Your task to perform on an android device: Open Google Chrome and click the shortcut for Amazon.com Image 0: 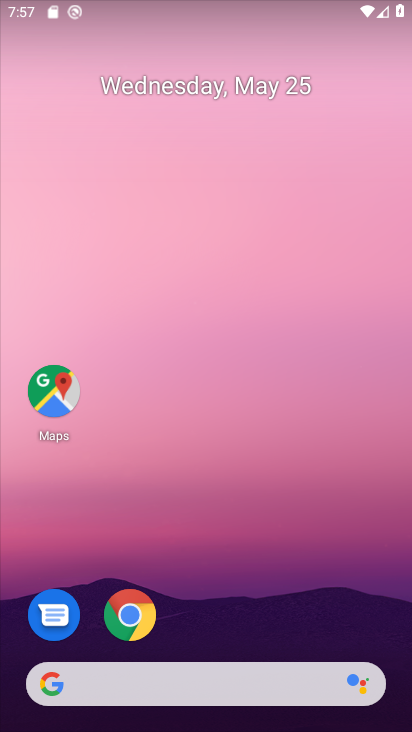
Step 0: drag from (262, 507) to (6, 31)
Your task to perform on an android device: Open Google Chrome and click the shortcut for Amazon.com Image 1: 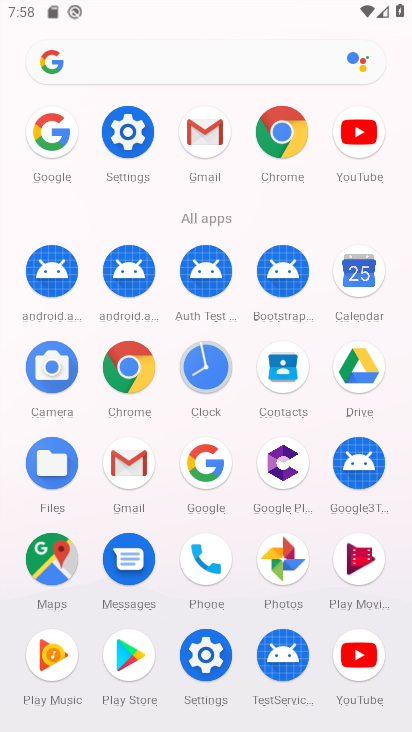
Step 1: click (283, 130)
Your task to perform on an android device: Open Google Chrome and click the shortcut for Amazon.com Image 2: 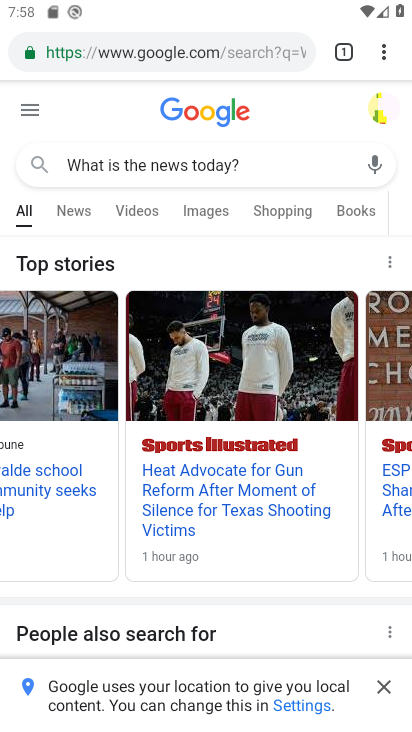
Step 2: click (237, 54)
Your task to perform on an android device: Open Google Chrome and click the shortcut for Amazon.com Image 3: 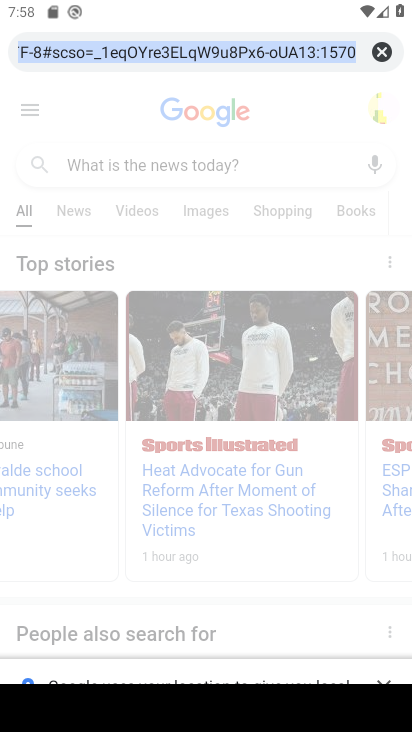
Step 3: click (379, 47)
Your task to perform on an android device: Open Google Chrome and click the shortcut for Amazon.com Image 4: 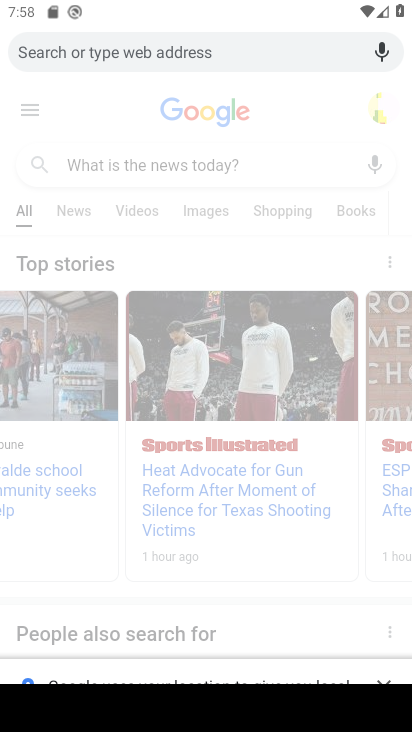
Step 4: type " Amazon.com"
Your task to perform on an android device: Open Google Chrome and click the shortcut for Amazon.com Image 5: 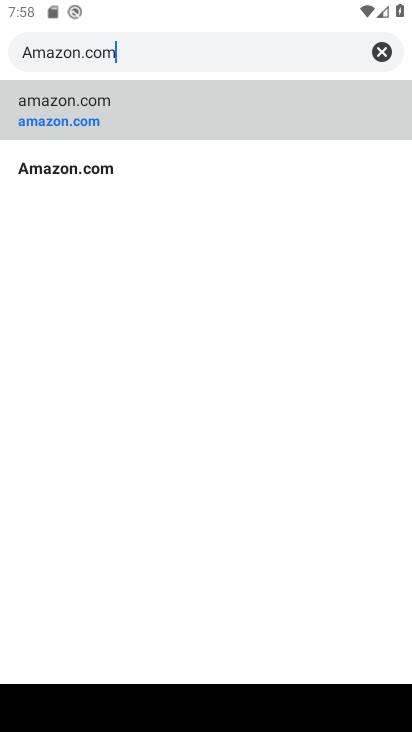
Step 5: type ""
Your task to perform on an android device: Open Google Chrome and click the shortcut for Amazon.com Image 6: 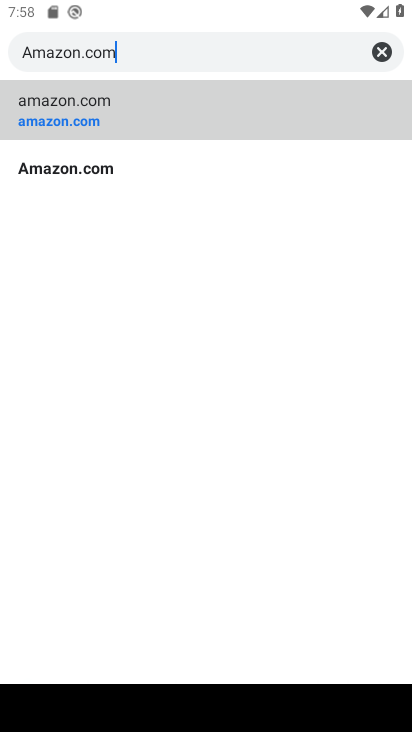
Step 6: click (127, 110)
Your task to perform on an android device: Open Google Chrome and click the shortcut for Amazon.com Image 7: 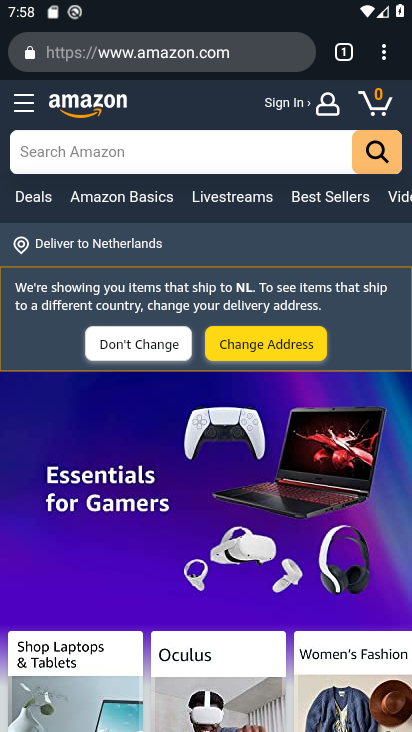
Step 7: task complete